Your task to perform on an android device: Open Wikipedia Image 0: 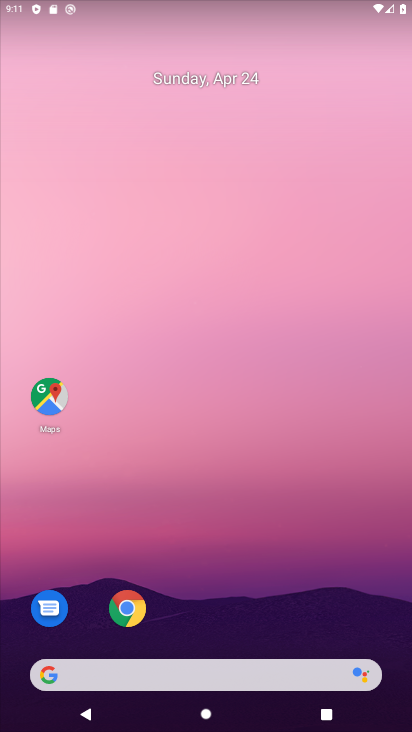
Step 0: press home button
Your task to perform on an android device: Open Wikipedia Image 1: 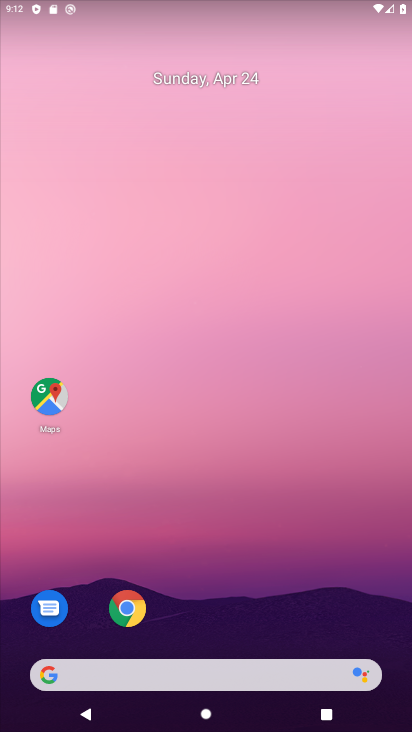
Step 1: drag from (223, 702) to (207, 230)
Your task to perform on an android device: Open Wikipedia Image 2: 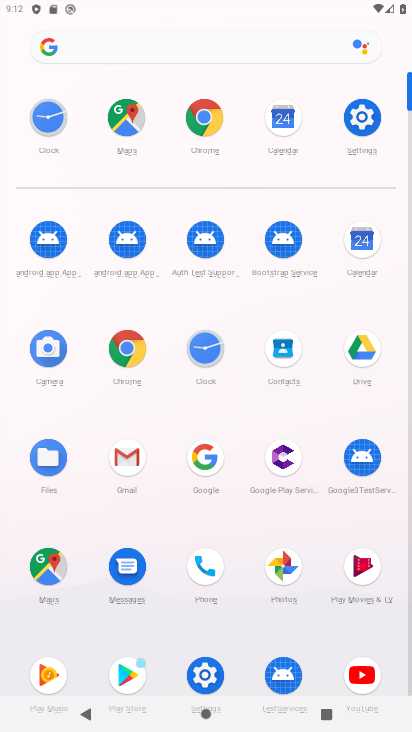
Step 2: click (219, 104)
Your task to perform on an android device: Open Wikipedia Image 3: 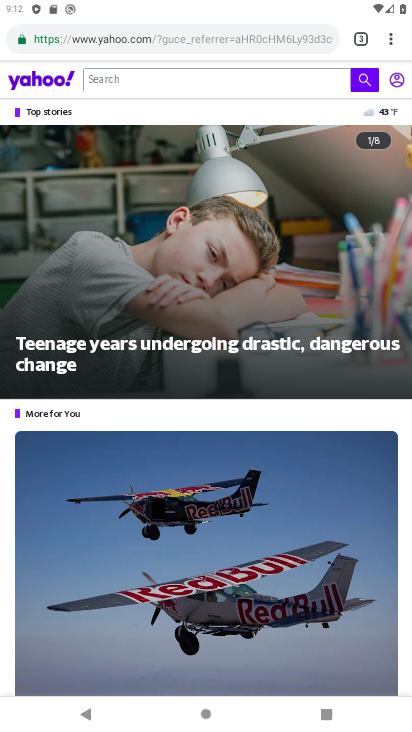
Step 3: click (364, 30)
Your task to perform on an android device: Open Wikipedia Image 4: 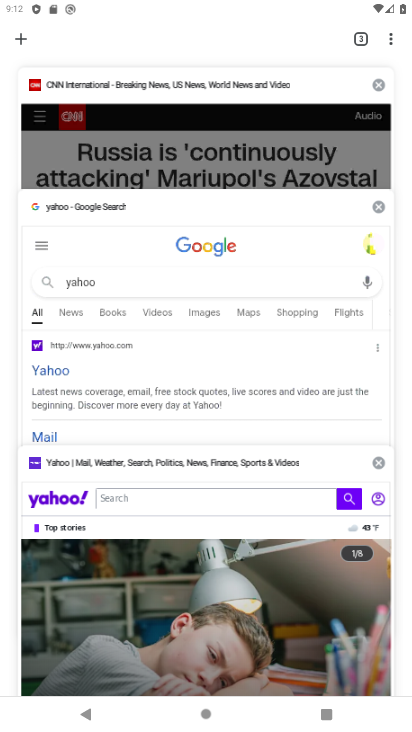
Step 4: click (21, 44)
Your task to perform on an android device: Open Wikipedia Image 5: 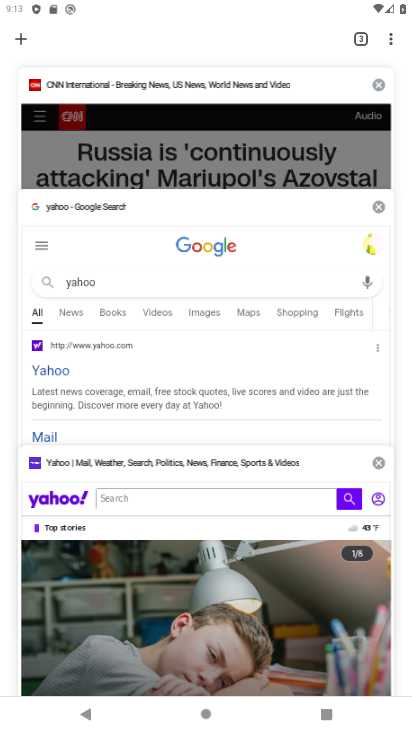
Step 5: click (9, 34)
Your task to perform on an android device: Open Wikipedia Image 6: 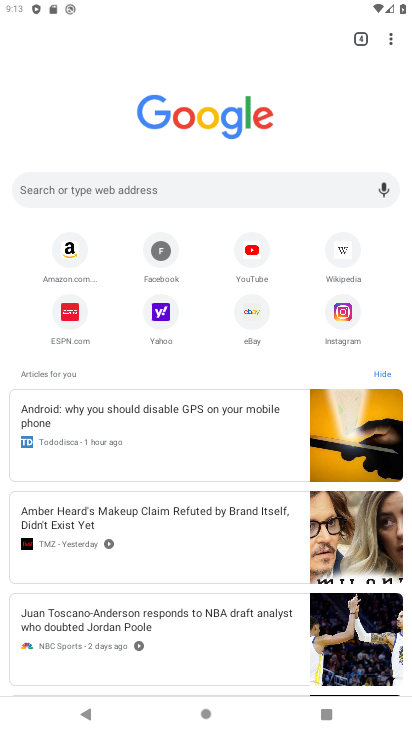
Step 6: click (349, 252)
Your task to perform on an android device: Open Wikipedia Image 7: 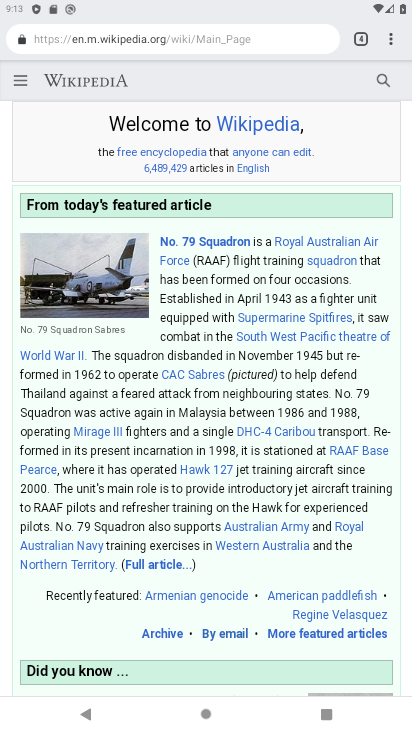
Step 7: task complete